Your task to perform on an android device: What's on my calendar tomorrow? Image 0: 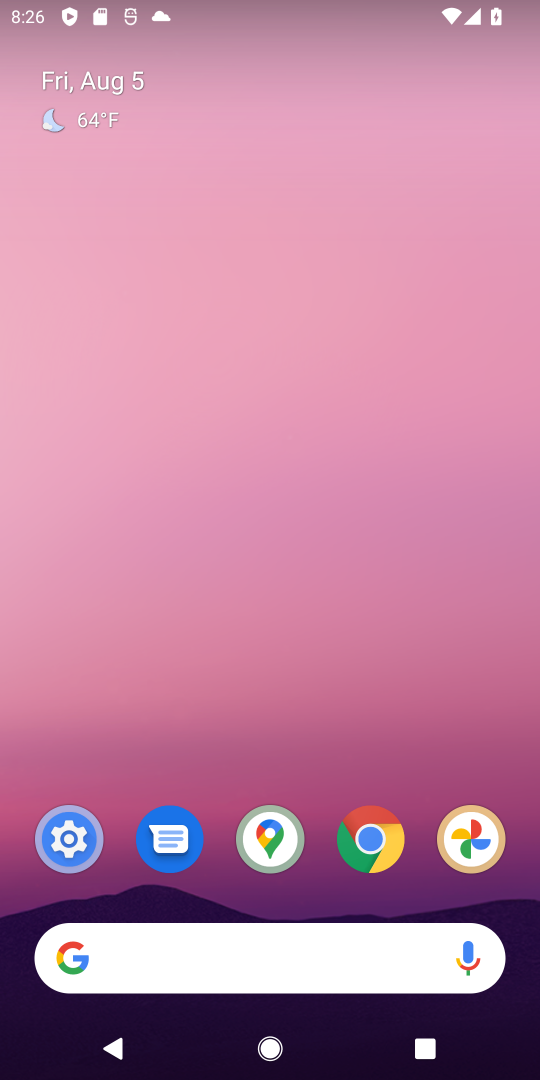
Step 0: drag from (326, 882) to (333, 4)
Your task to perform on an android device: What's on my calendar tomorrow? Image 1: 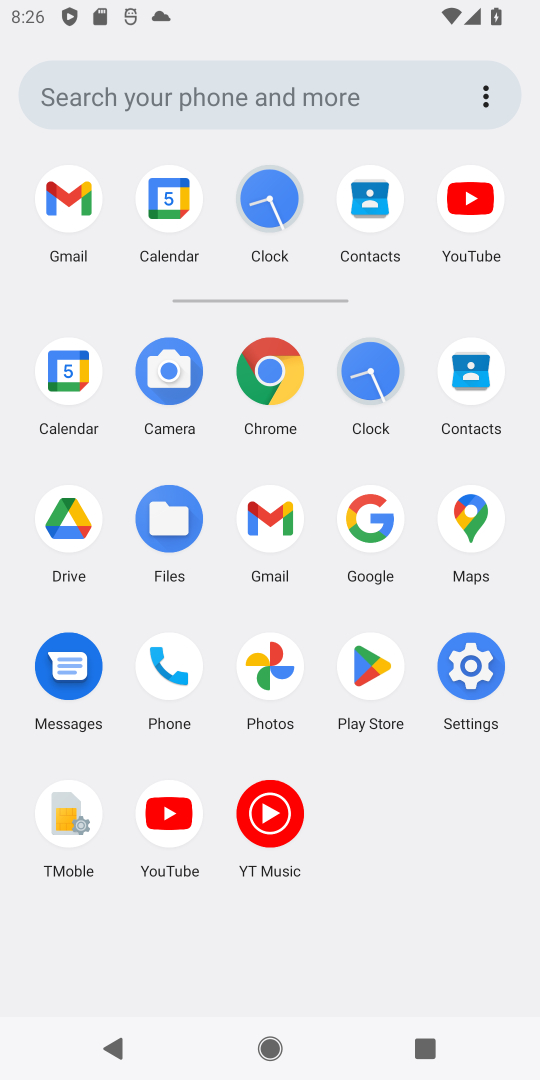
Step 1: click (64, 375)
Your task to perform on an android device: What's on my calendar tomorrow? Image 2: 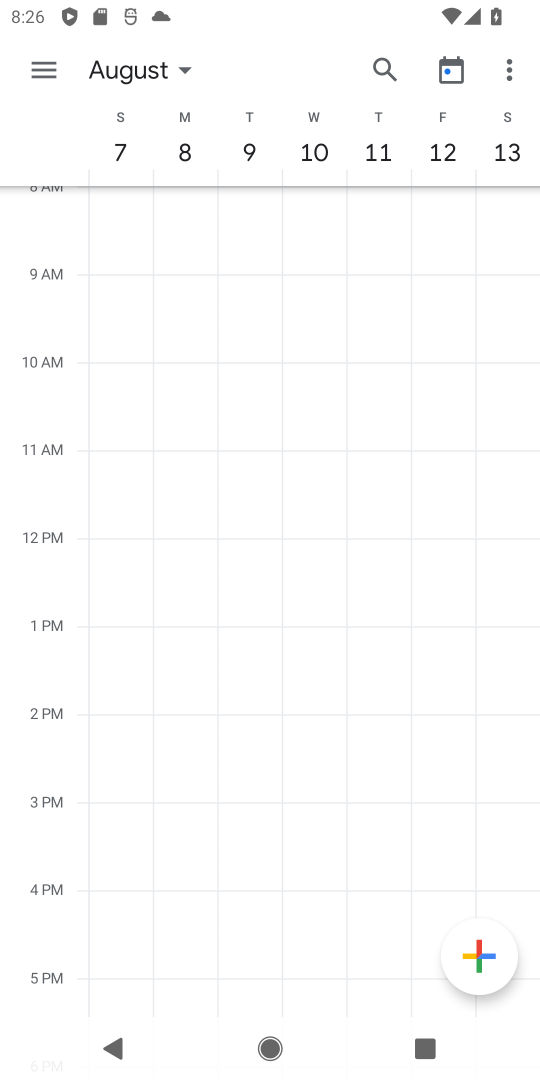
Step 2: click (182, 67)
Your task to perform on an android device: What's on my calendar tomorrow? Image 3: 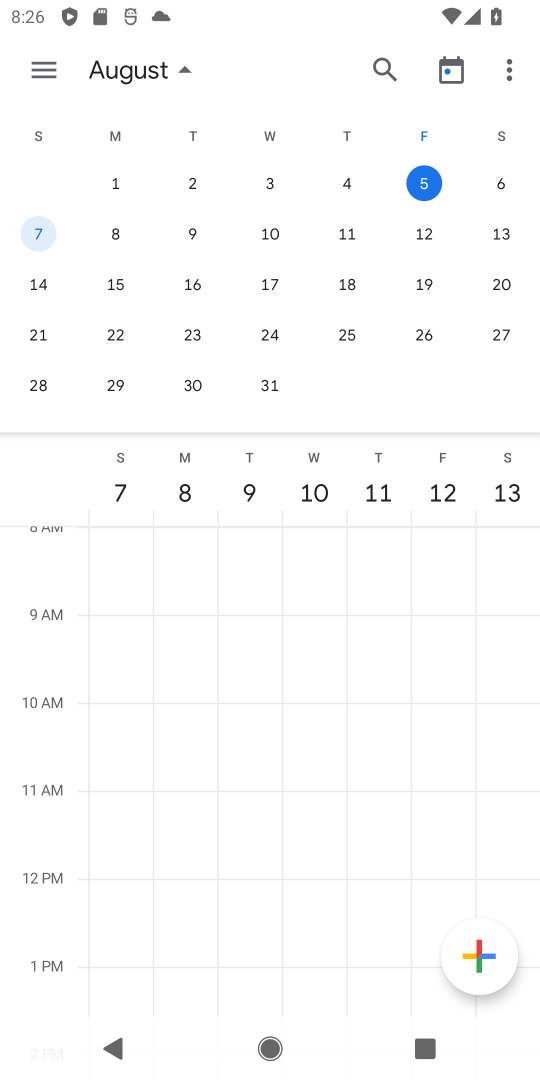
Step 3: click (502, 173)
Your task to perform on an android device: What's on my calendar tomorrow? Image 4: 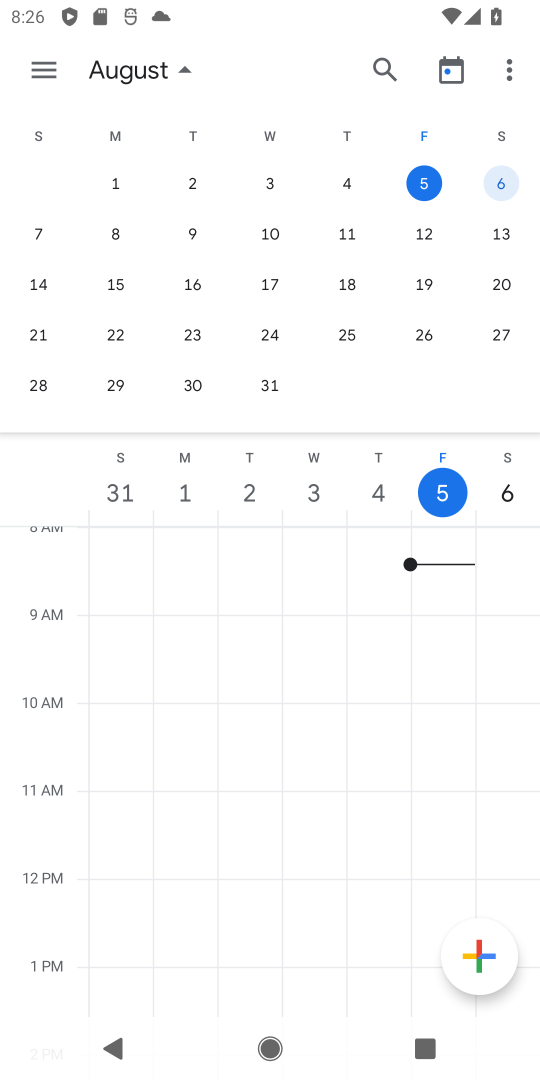
Step 4: click (495, 176)
Your task to perform on an android device: What's on my calendar tomorrow? Image 5: 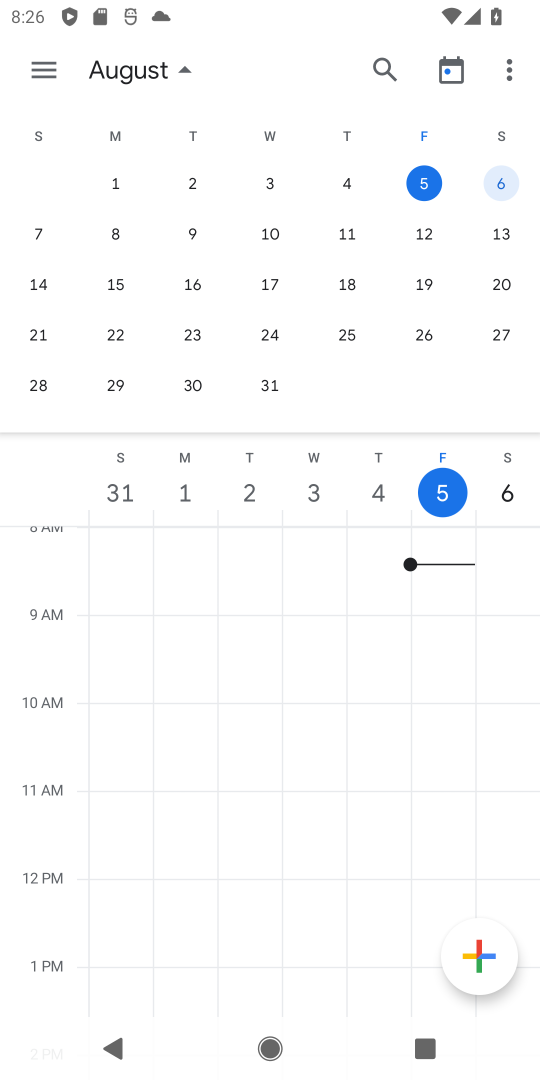
Step 5: click (509, 486)
Your task to perform on an android device: What's on my calendar tomorrow? Image 6: 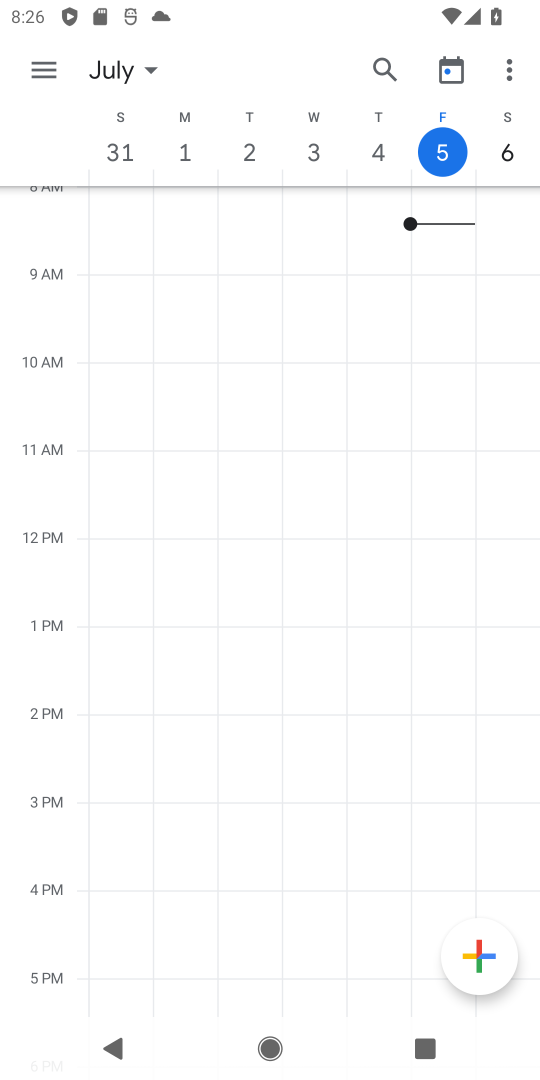
Step 6: task complete